Your task to perform on an android device: Go to Google Image 0: 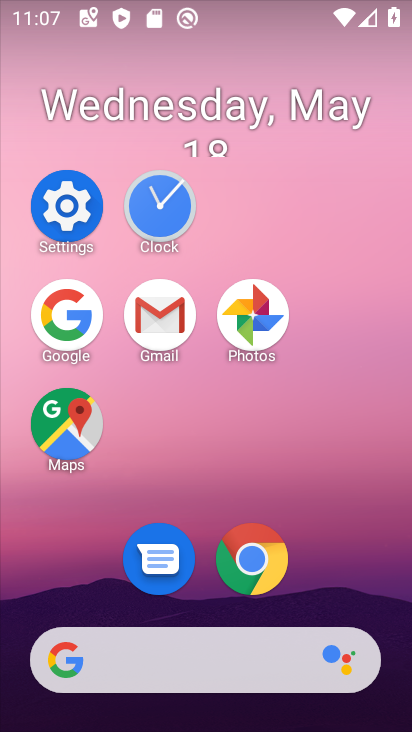
Step 0: click (84, 315)
Your task to perform on an android device: Go to Google Image 1: 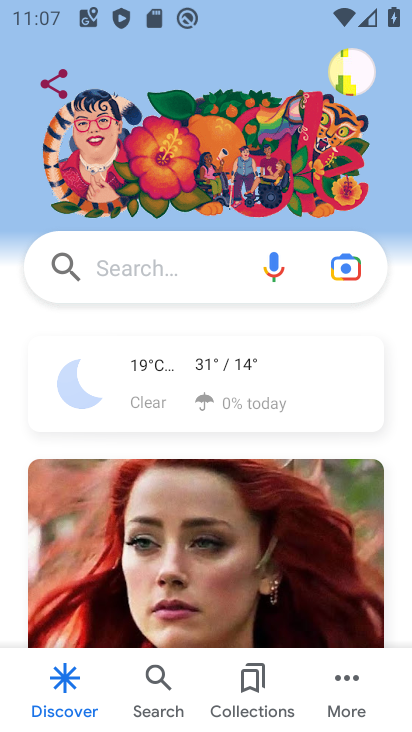
Step 1: task complete